Your task to perform on an android device: Toggle the flashlight Image 0: 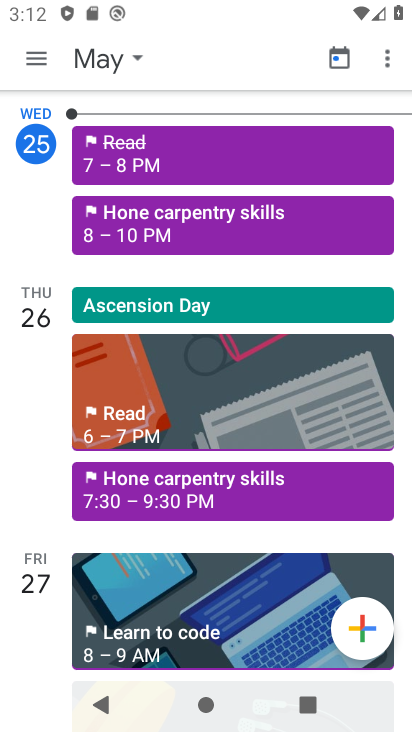
Step 0: press home button
Your task to perform on an android device: Toggle the flashlight Image 1: 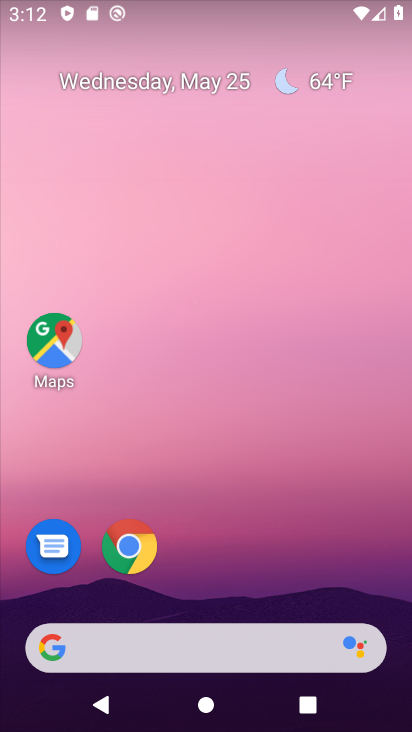
Step 1: click (178, 309)
Your task to perform on an android device: Toggle the flashlight Image 2: 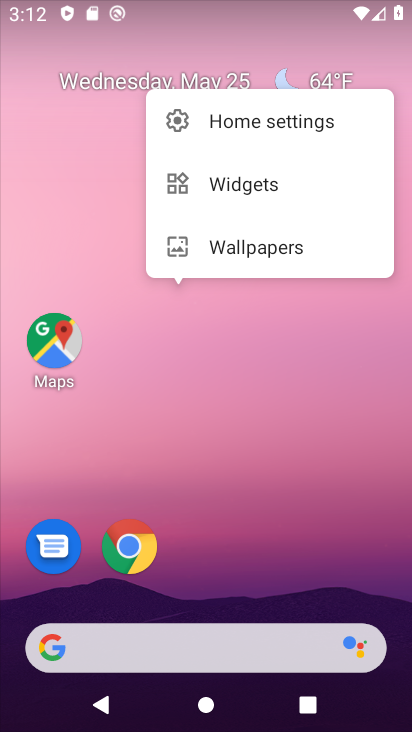
Step 2: click (214, 559)
Your task to perform on an android device: Toggle the flashlight Image 3: 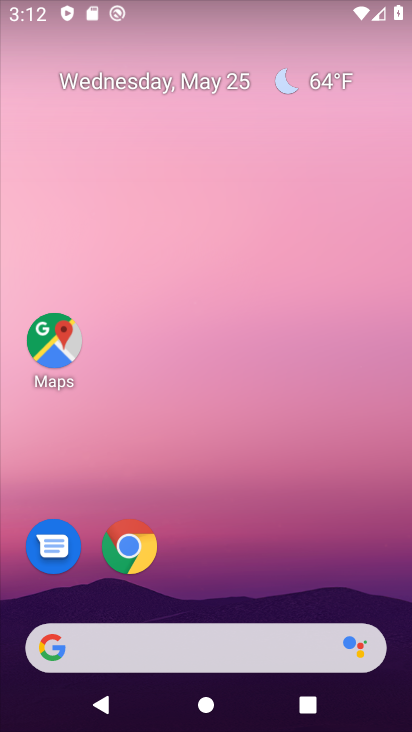
Step 3: drag from (214, 559) to (82, 189)
Your task to perform on an android device: Toggle the flashlight Image 4: 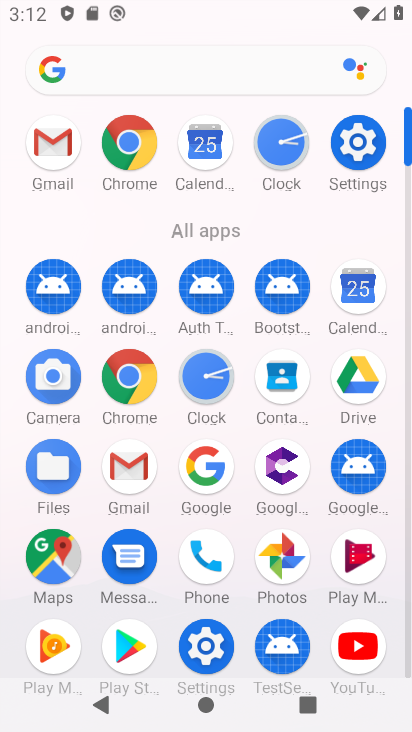
Step 4: click (357, 148)
Your task to perform on an android device: Toggle the flashlight Image 5: 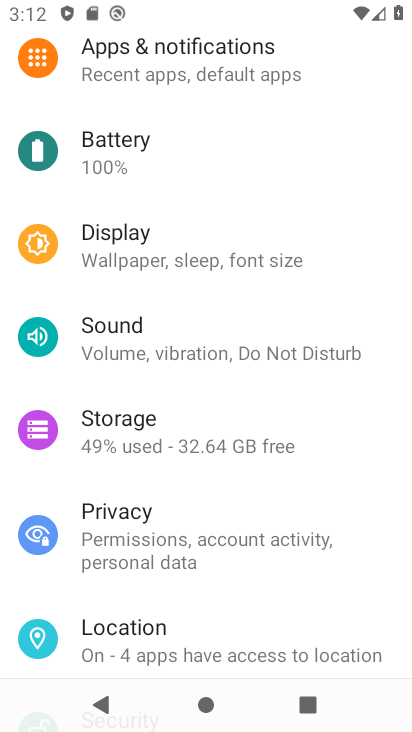
Step 5: drag from (229, 93) to (150, 423)
Your task to perform on an android device: Toggle the flashlight Image 6: 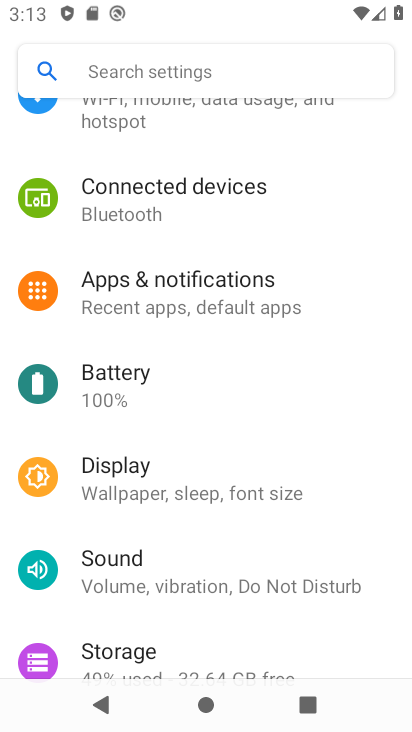
Step 6: click (155, 68)
Your task to perform on an android device: Toggle the flashlight Image 7: 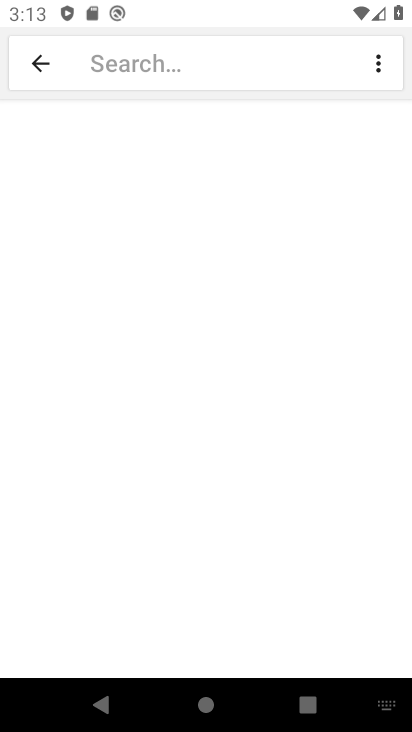
Step 7: type "flashlight"
Your task to perform on an android device: Toggle the flashlight Image 8: 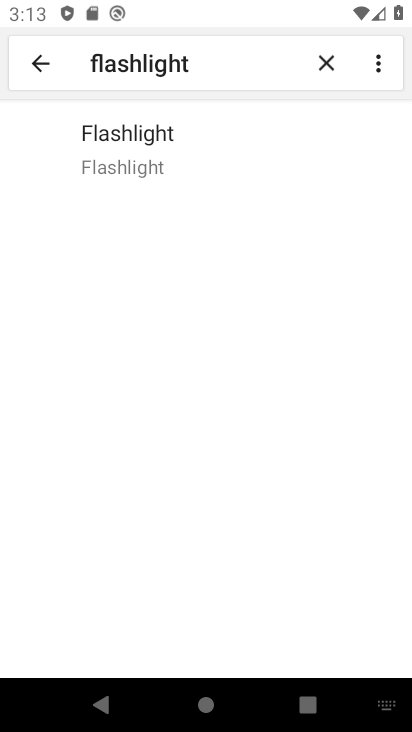
Step 8: click (132, 156)
Your task to perform on an android device: Toggle the flashlight Image 9: 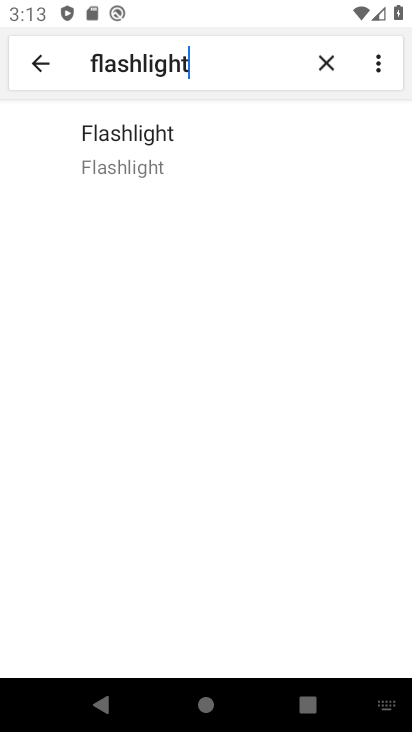
Step 9: click (132, 156)
Your task to perform on an android device: Toggle the flashlight Image 10: 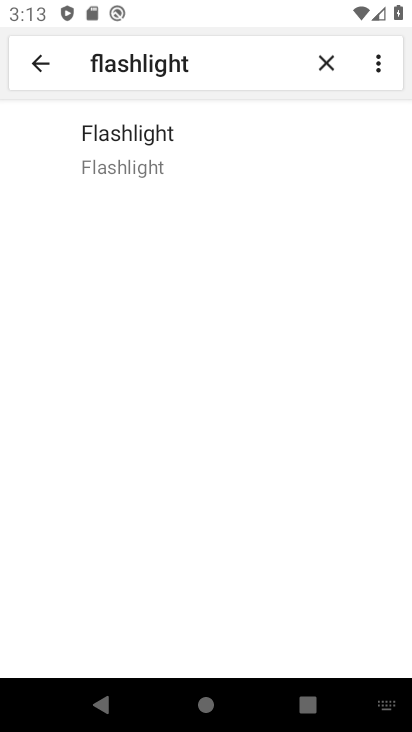
Step 10: click (132, 156)
Your task to perform on an android device: Toggle the flashlight Image 11: 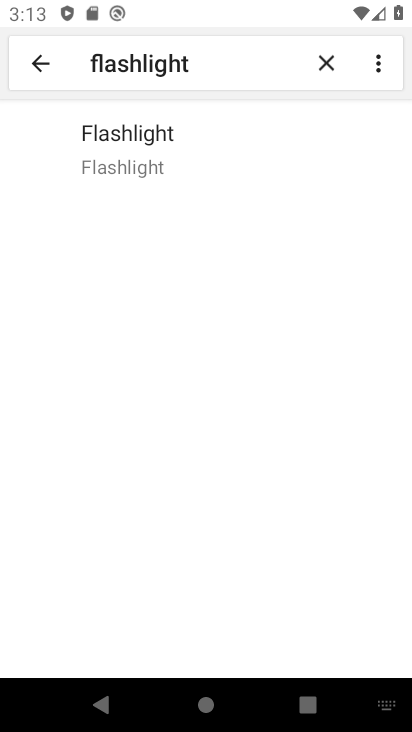
Step 11: click (132, 156)
Your task to perform on an android device: Toggle the flashlight Image 12: 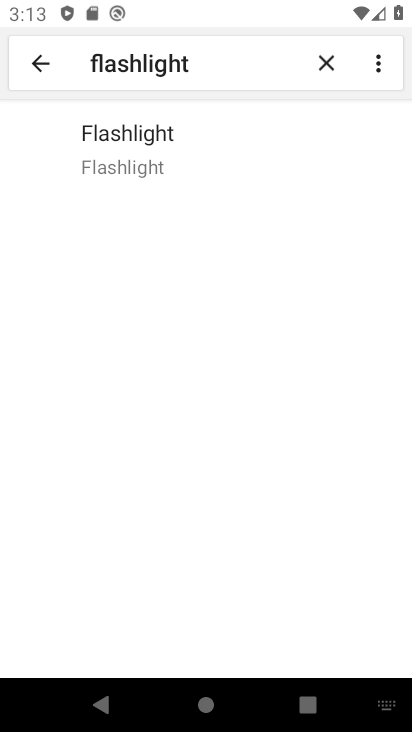
Step 12: click (132, 156)
Your task to perform on an android device: Toggle the flashlight Image 13: 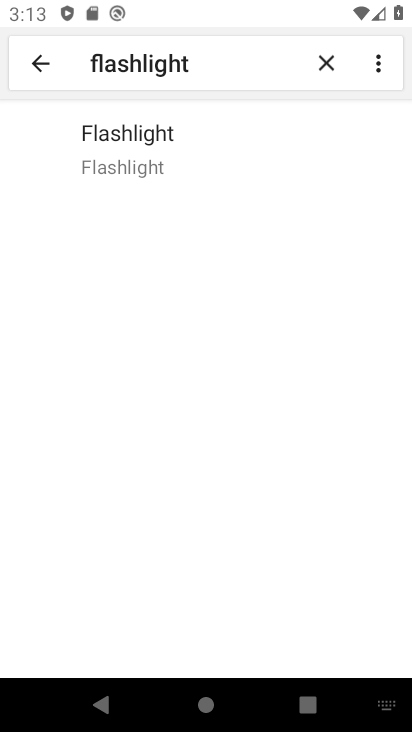
Step 13: task complete